Your task to perform on an android device: set the timer Image 0: 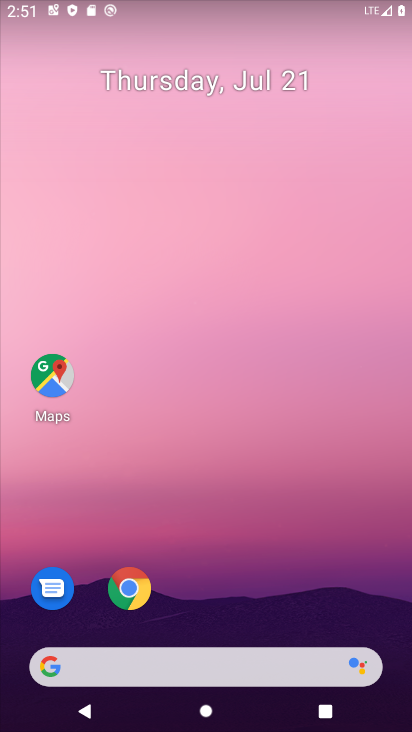
Step 0: drag from (182, 630) to (182, 316)
Your task to perform on an android device: set the timer Image 1: 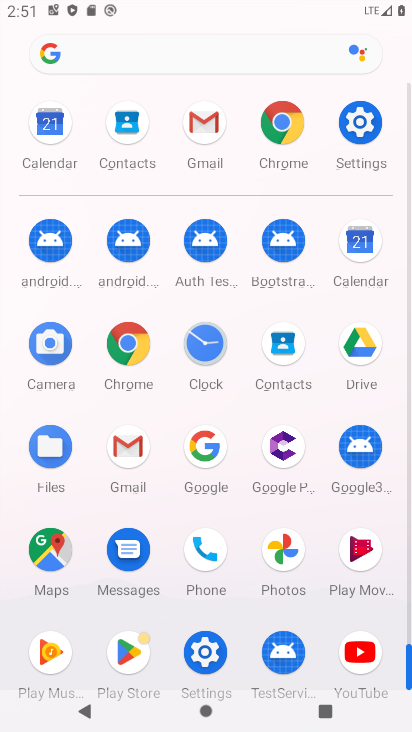
Step 1: click (197, 333)
Your task to perform on an android device: set the timer Image 2: 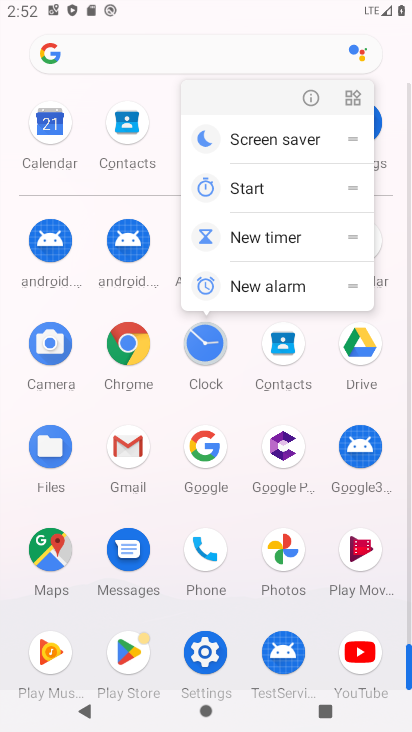
Step 2: click (311, 92)
Your task to perform on an android device: set the timer Image 3: 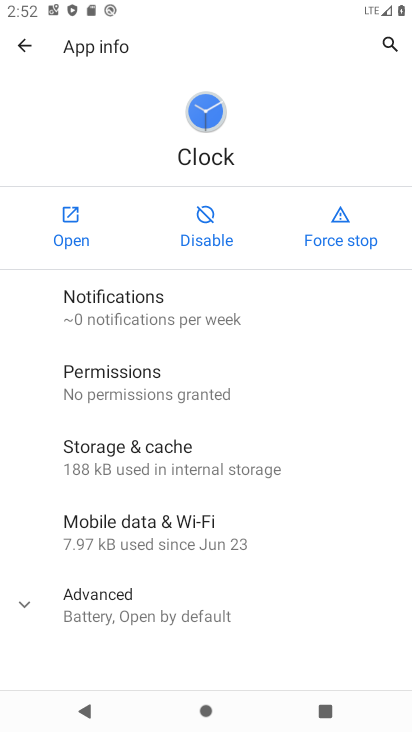
Step 3: click (68, 234)
Your task to perform on an android device: set the timer Image 4: 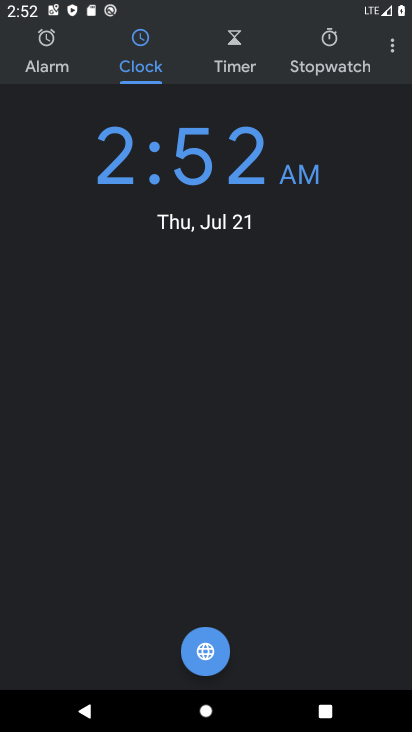
Step 4: click (237, 40)
Your task to perform on an android device: set the timer Image 5: 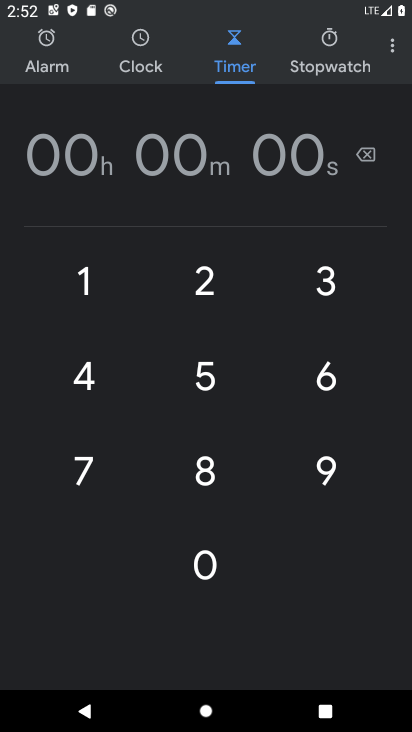
Step 5: click (211, 291)
Your task to perform on an android device: set the timer Image 6: 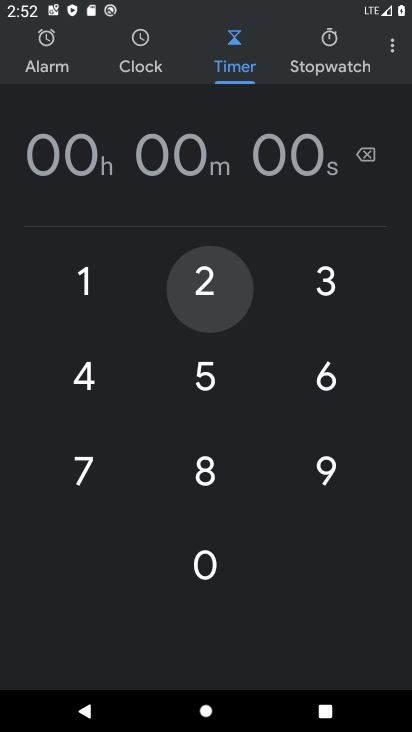
Step 6: click (341, 290)
Your task to perform on an android device: set the timer Image 7: 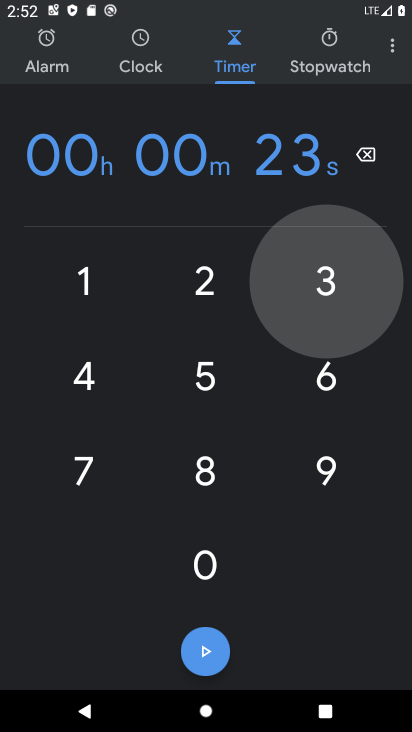
Step 7: click (251, 335)
Your task to perform on an android device: set the timer Image 8: 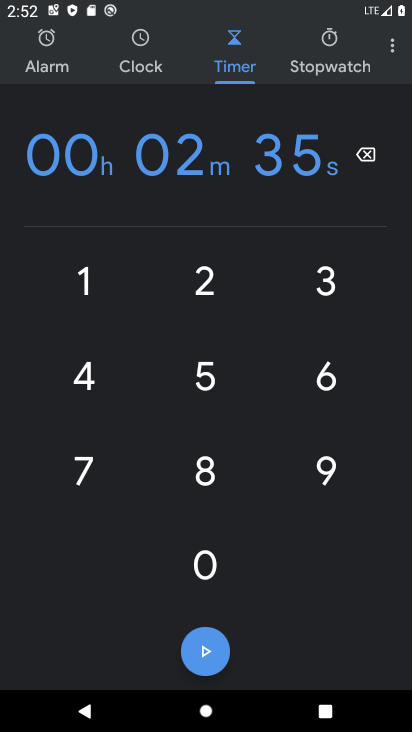
Step 8: click (242, 346)
Your task to perform on an android device: set the timer Image 9: 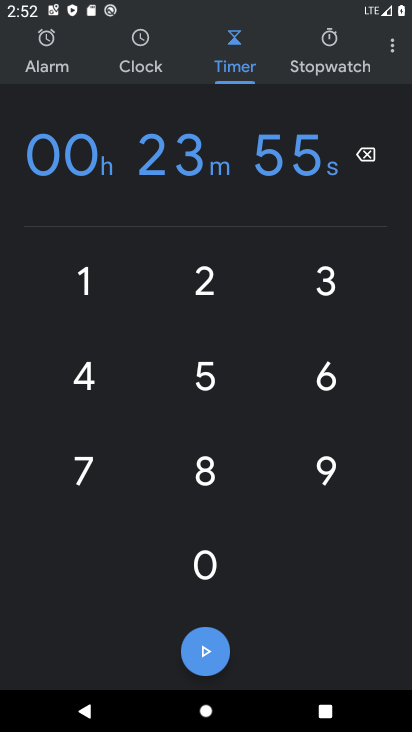
Step 9: click (200, 645)
Your task to perform on an android device: set the timer Image 10: 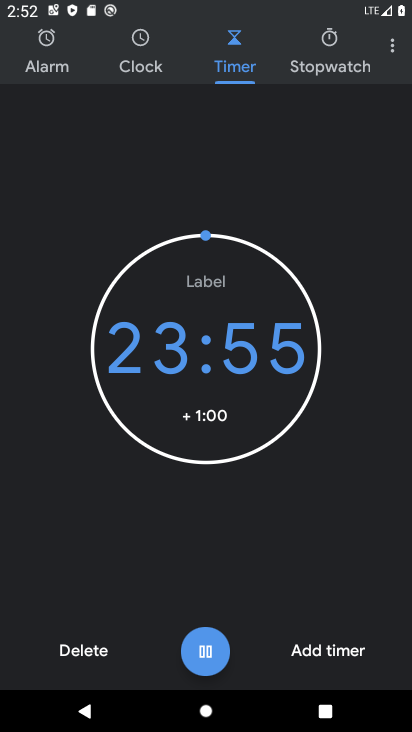
Step 10: task complete